Your task to perform on an android device: Open Yahoo.com Image 0: 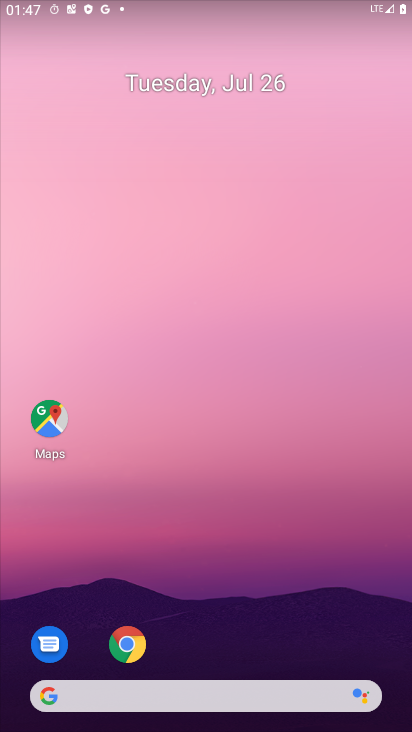
Step 0: click (135, 641)
Your task to perform on an android device: Open Yahoo.com Image 1: 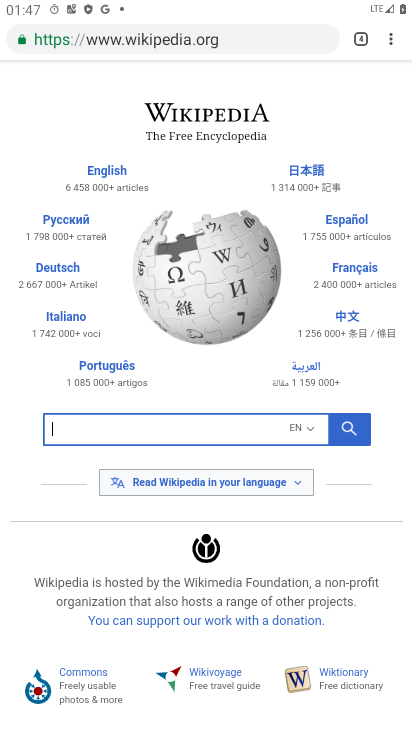
Step 1: click (248, 31)
Your task to perform on an android device: Open Yahoo.com Image 2: 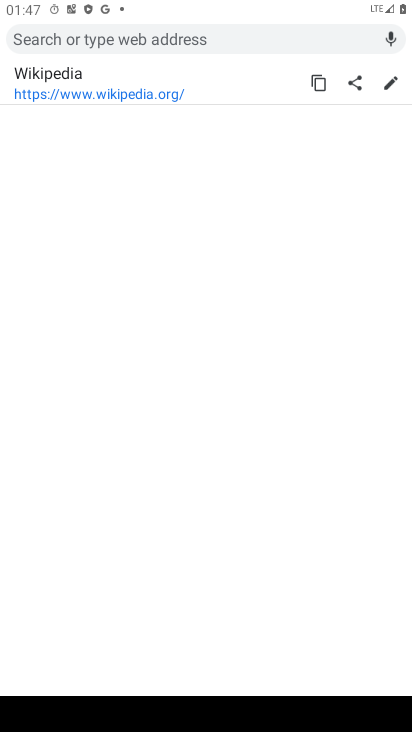
Step 2: type "yahoo.com"
Your task to perform on an android device: Open Yahoo.com Image 3: 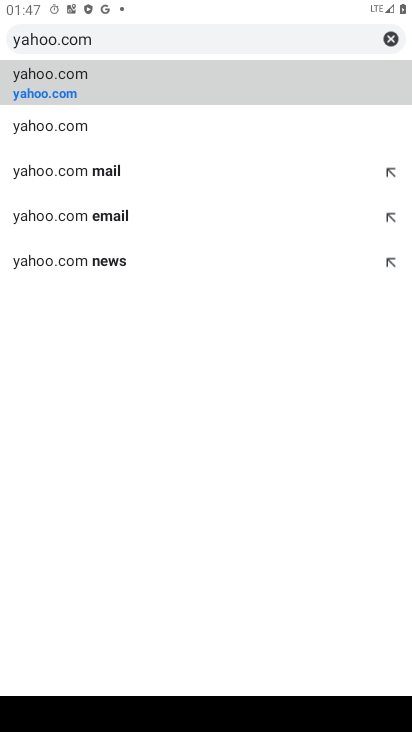
Step 3: click (58, 93)
Your task to perform on an android device: Open Yahoo.com Image 4: 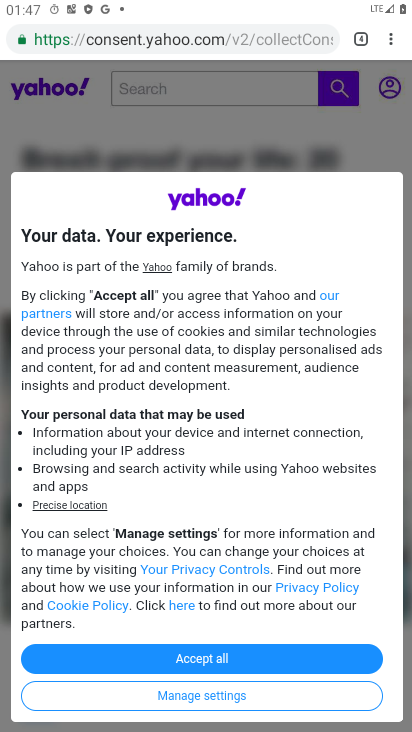
Step 4: task complete